Your task to perform on an android device: change your default location settings in chrome Image 0: 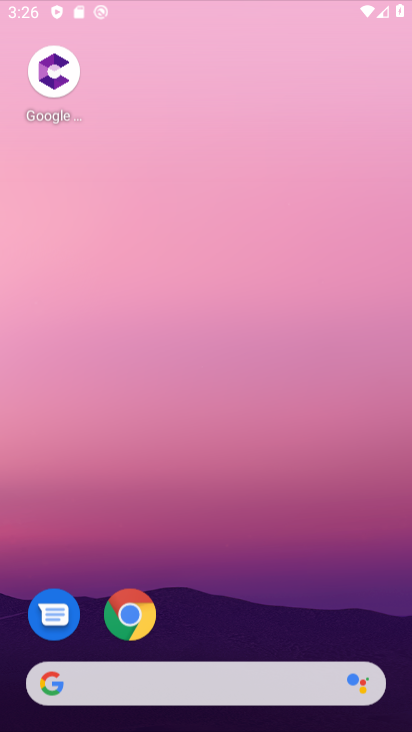
Step 0: click (137, 613)
Your task to perform on an android device: change your default location settings in chrome Image 1: 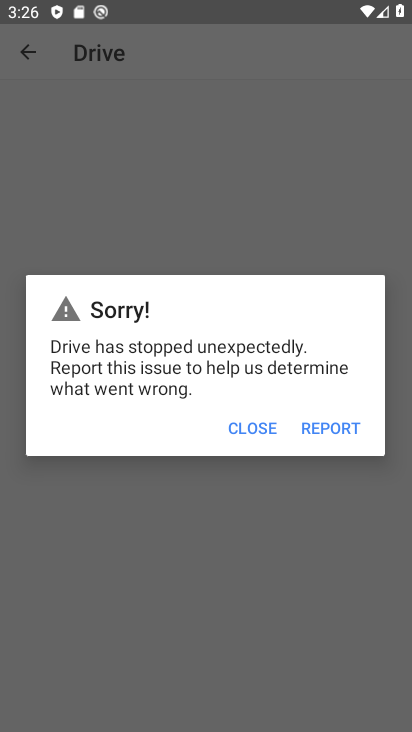
Step 1: press home button
Your task to perform on an android device: change your default location settings in chrome Image 2: 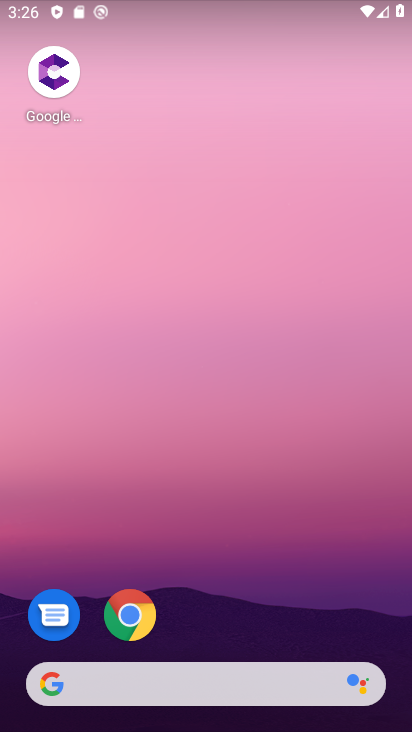
Step 2: click (135, 619)
Your task to perform on an android device: change your default location settings in chrome Image 3: 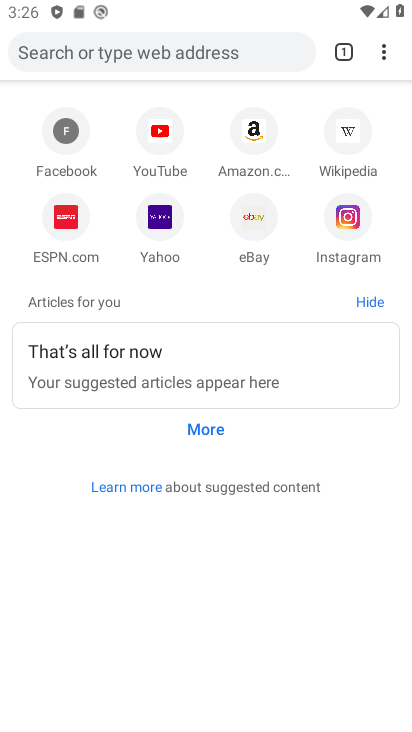
Step 3: click (384, 59)
Your task to perform on an android device: change your default location settings in chrome Image 4: 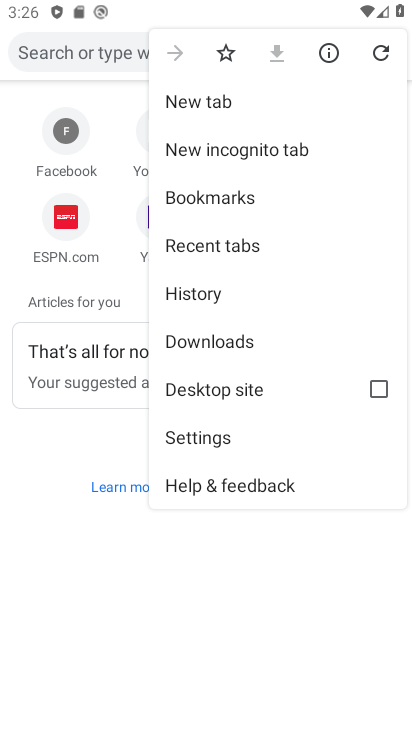
Step 4: click (200, 433)
Your task to perform on an android device: change your default location settings in chrome Image 5: 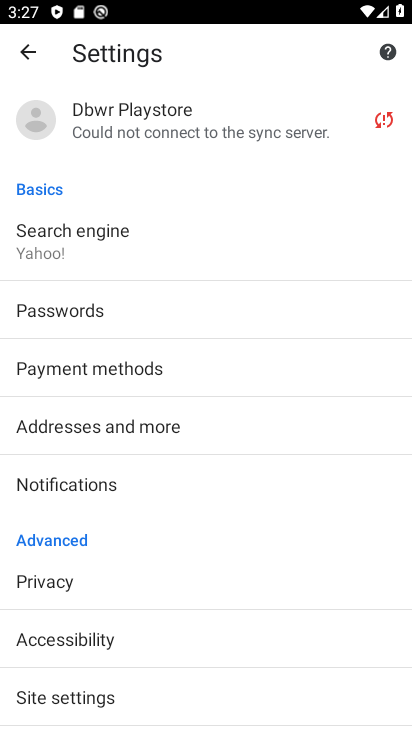
Step 5: drag from (119, 702) to (155, 432)
Your task to perform on an android device: change your default location settings in chrome Image 6: 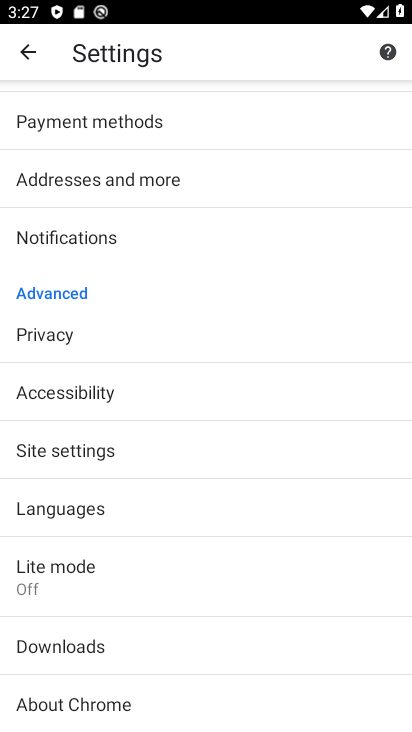
Step 6: click (91, 445)
Your task to perform on an android device: change your default location settings in chrome Image 7: 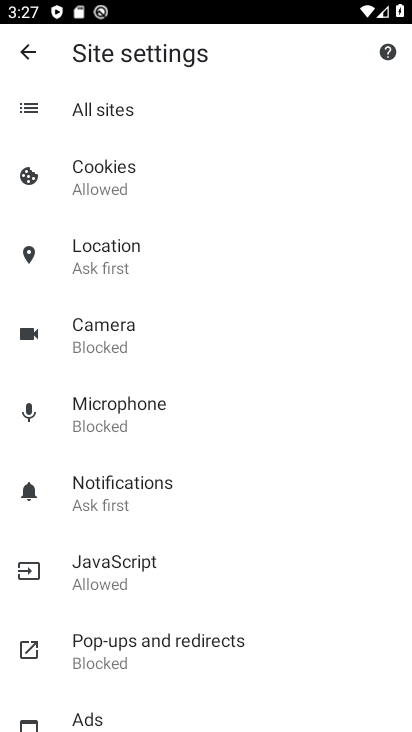
Step 7: click (114, 257)
Your task to perform on an android device: change your default location settings in chrome Image 8: 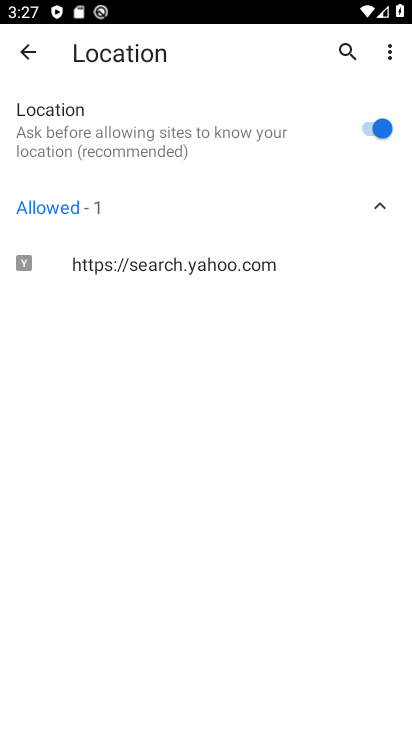
Step 8: click (370, 130)
Your task to perform on an android device: change your default location settings in chrome Image 9: 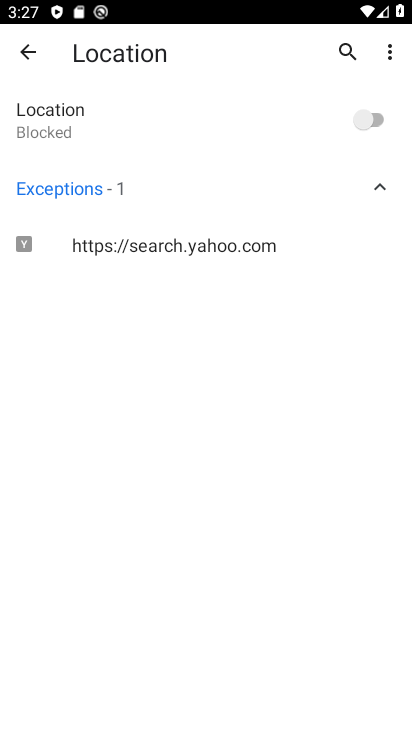
Step 9: task complete